Your task to perform on an android device: Go to location settings Image 0: 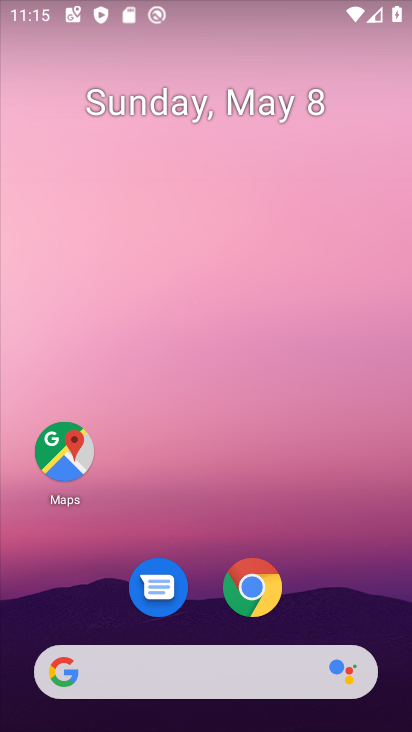
Step 0: drag from (371, 655) to (214, 196)
Your task to perform on an android device: Go to location settings Image 1: 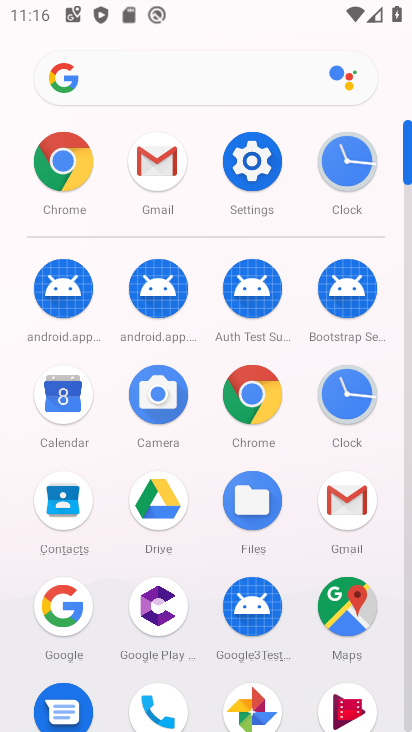
Step 1: click (231, 149)
Your task to perform on an android device: Go to location settings Image 2: 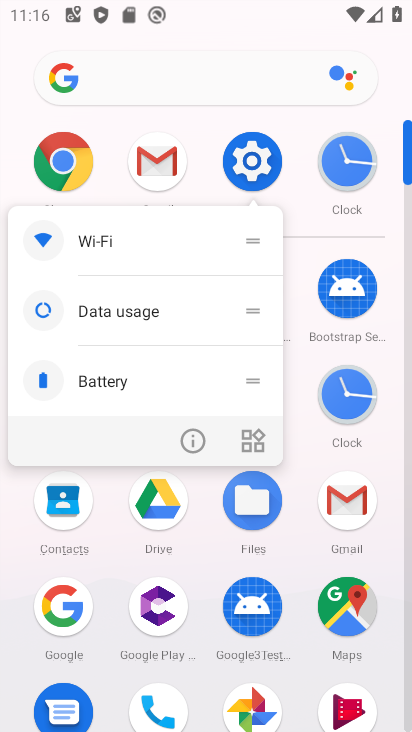
Step 2: click (238, 152)
Your task to perform on an android device: Go to location settings Image 3: 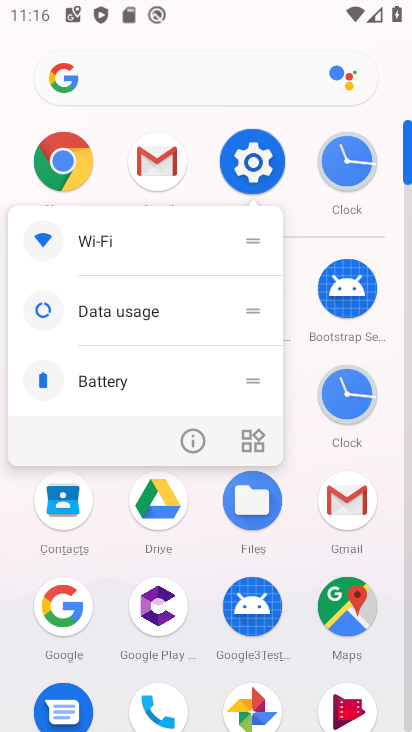
Step 3: click (238, 153)
Your task to perform on an android device: Go to location settings Image 4: 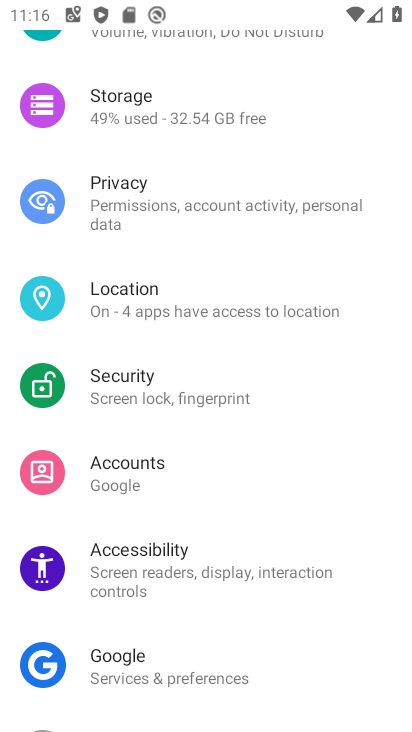
Step 4: click (171, 302)
Your task to perform on an android device: Go to location settings Image 5: 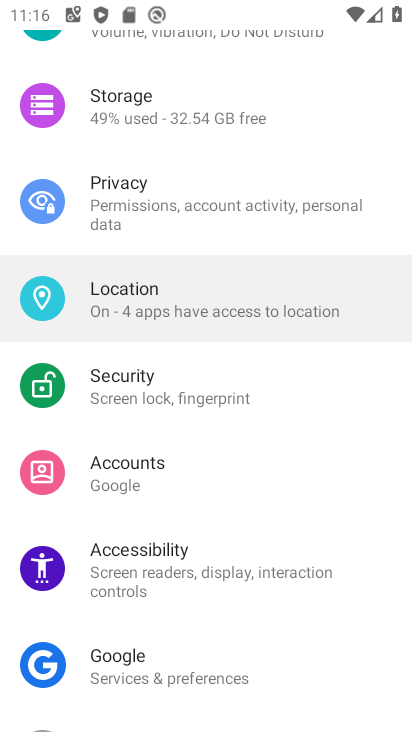
Step 5: click (170, 307)
Your task to perform on an android device: Go to location settings Image 6: 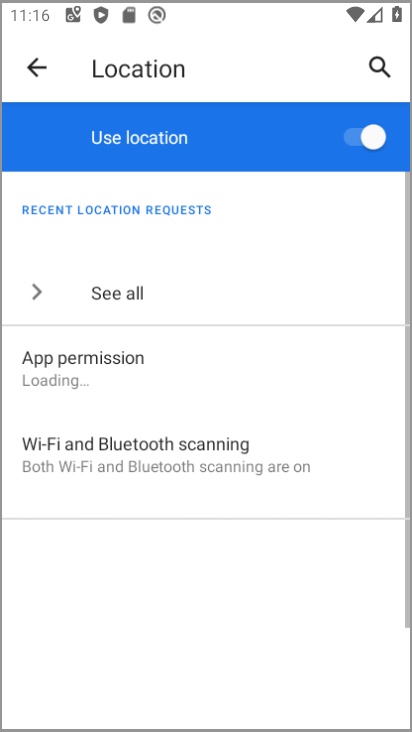
Step 6: click (170, 307)
Your task to perform on an android device: Go to location settings Image 7: 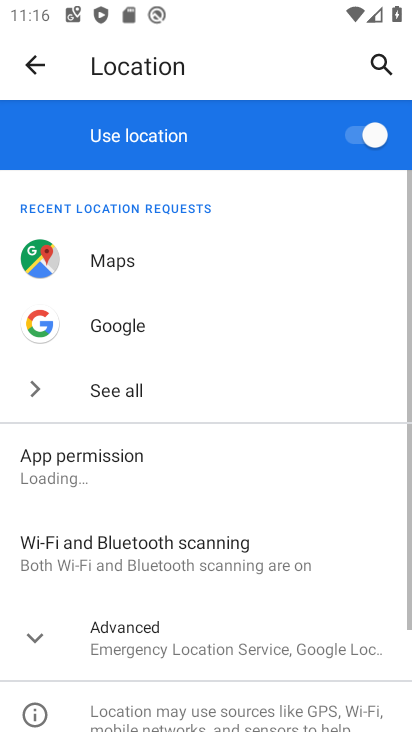
Step 7: click (372, 145)
Your task to perform on an android device: Go to location settings Image 8: 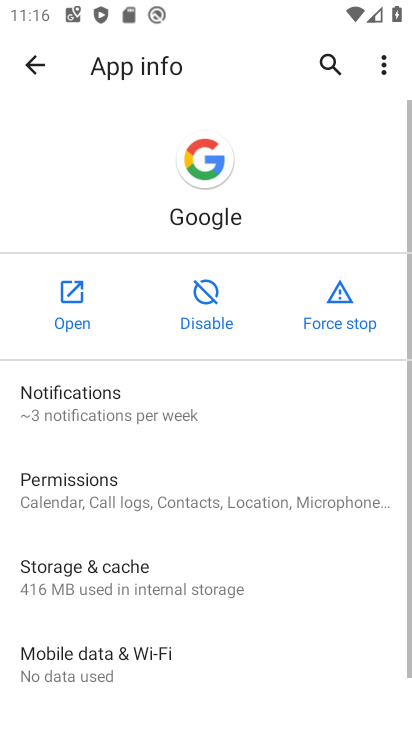
Step 8: click (26, 71)
Your task to perform on an android device: Go to location settings Image 9: 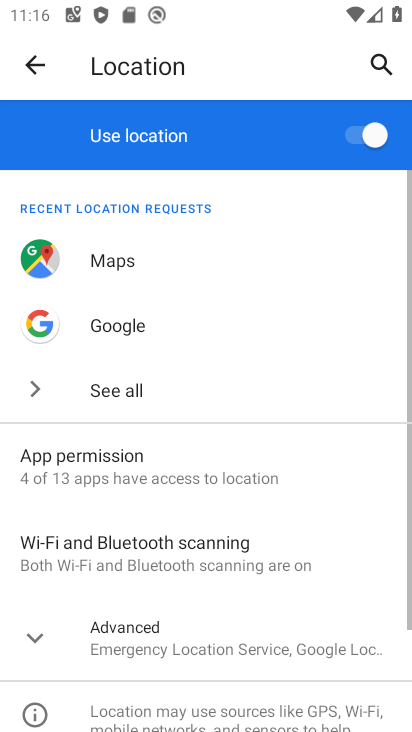
Step 9: click (368, 132)
Your task to perform on an android device: Go to location settings Image 10: 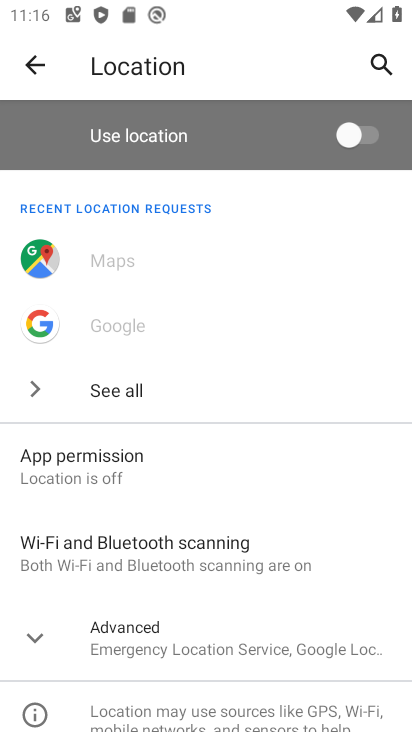
Step 10: task complete